Your task to perform on an android device: turn pop-ups on in chrome Image 0: 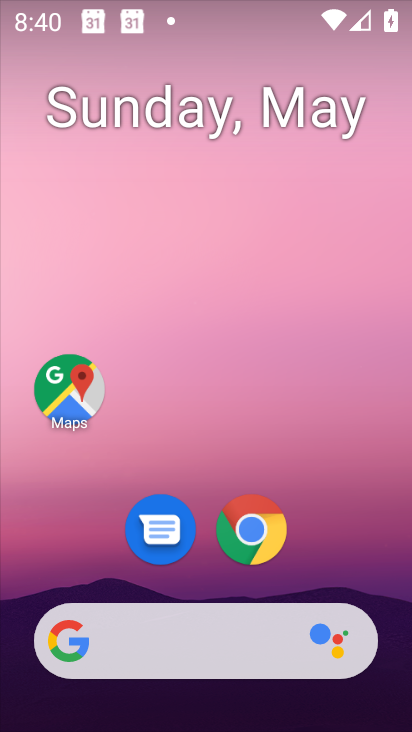
Step 0: click (265, 535)
Your task to perform on an android device: turn pop-ups on in chrome Image 1: 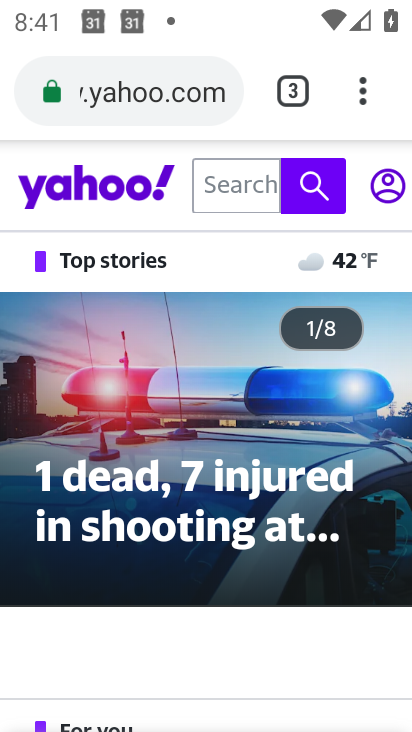
Step 1: click (360, 92)
Your task to perform on an android device: turn pop-ups on in chrome Image 2: 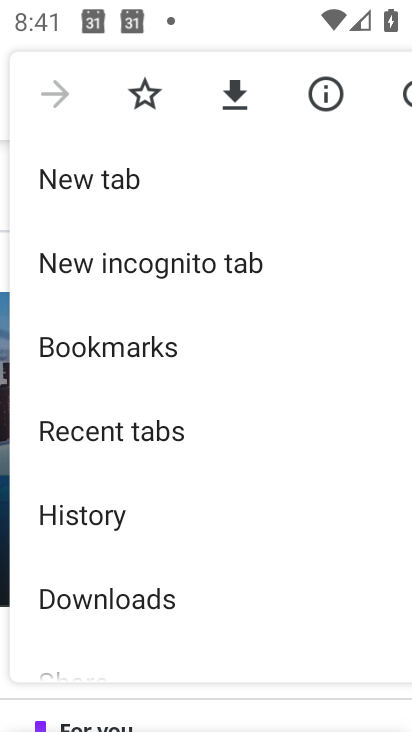
Step 2: drag from (169, 615) to (105, 362)
Your task to perform on an android device: turn pop-ups on in chrome Image 3: 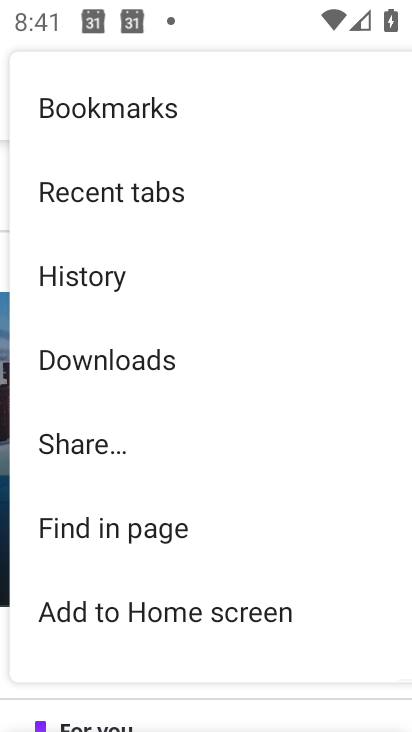
Step 3: drag from (178, 578) to (155, 4)
Your task to perform on an android device: turn pop-ups on in chrome Image 4: 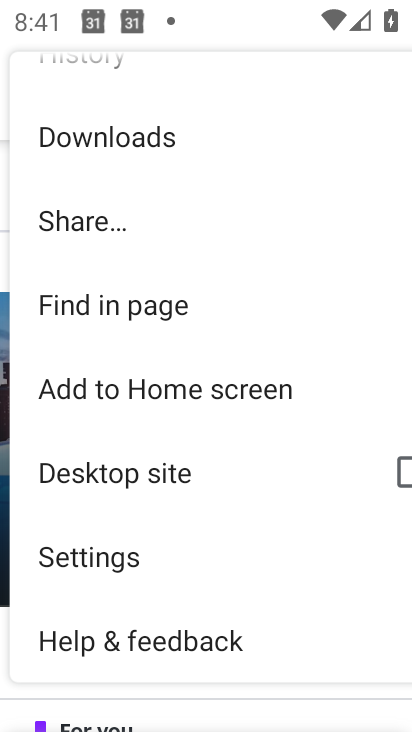
Step 4: click (165, 556)
Your task to perform on an android device: turn pop-ups on in chrome Image 5: 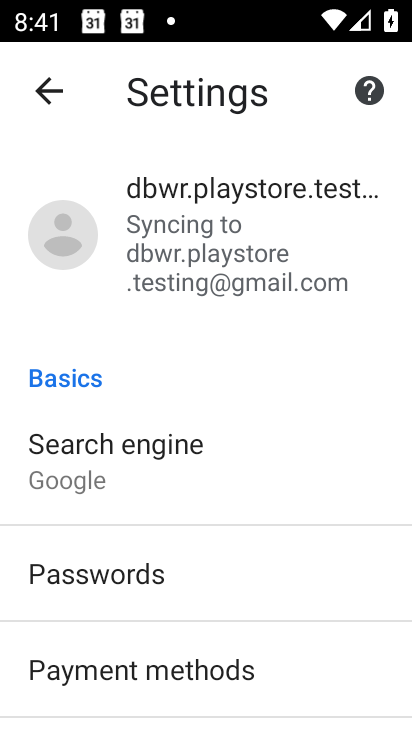
Step 5: task complete